Your task to perform on an android device: delete browsing data in the chrome app Image 0: 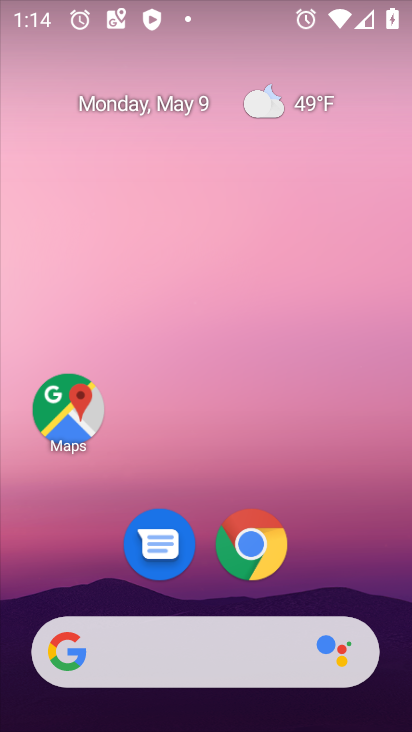
Step 0: click (251, 556)
Your task to perform on an android device: delete browsing data in the chrome app Image 1: 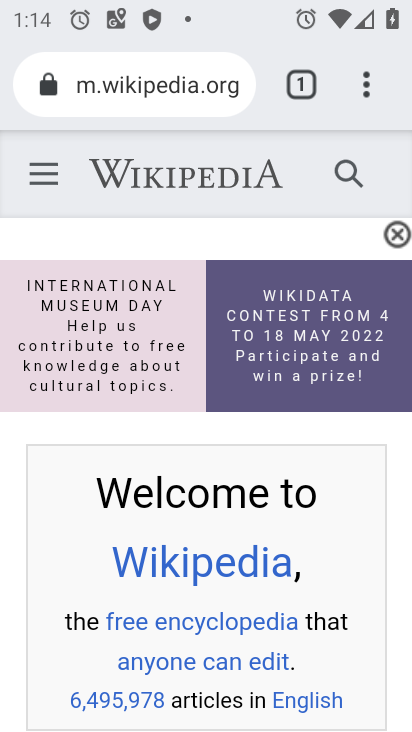
Step 1: click (354, 84)
Your task to perform on an android device: delete browsing data in the chrome app Image 2: 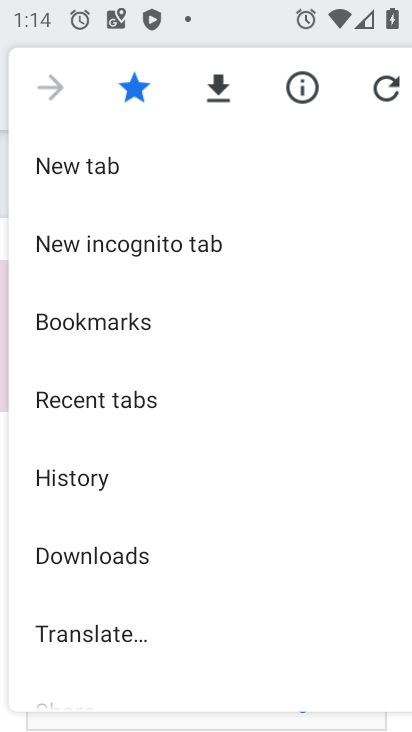
Step 2: click (125, 482)
Your task to perform on an android device: delete browsing data in the chrome app Image 3: 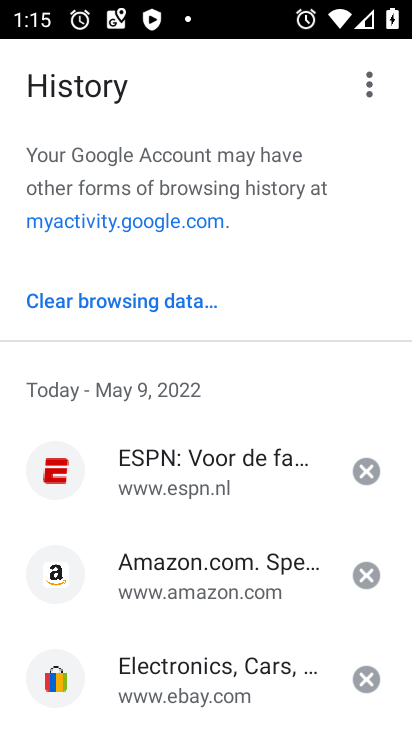
Step 3: click (163, 312)
Your task to perform on an android device: delete browsing data in the chrome app Image 4: 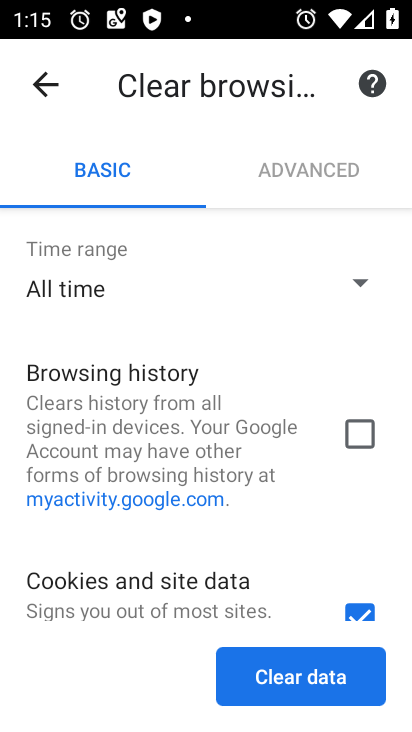
Step 4: click (280, 692)
Your task to perform on an android device: delete browsing data in the chrome app Image 5: 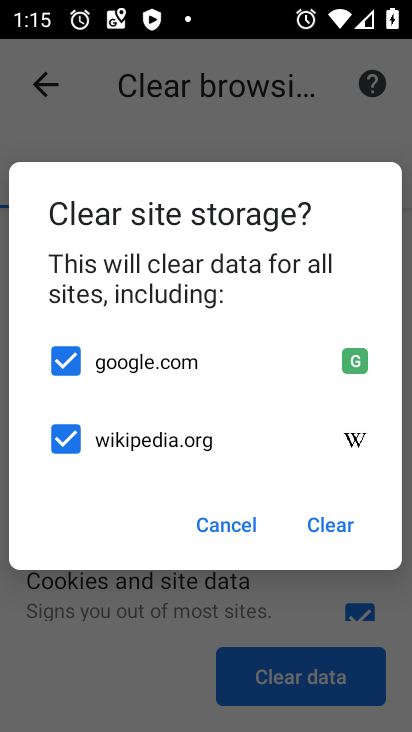
Step 5: click (235, 519)
Your task to perform on an android device: delete browsing data in the chrome app Image 6: 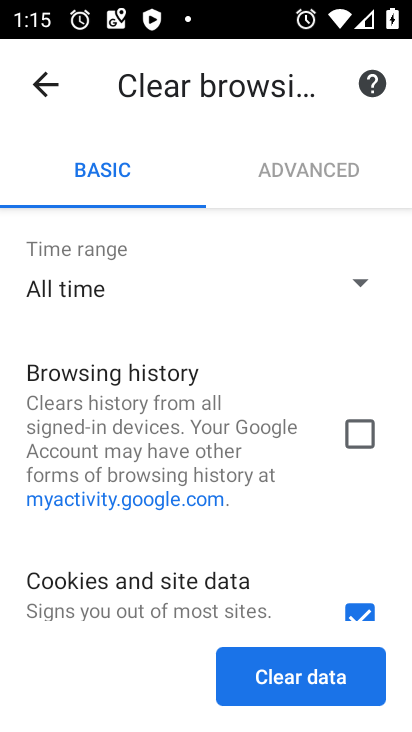
Step 6: click (358, 428)
Your task to perform on an android device: delete browsing data in the chrome app Image 7: 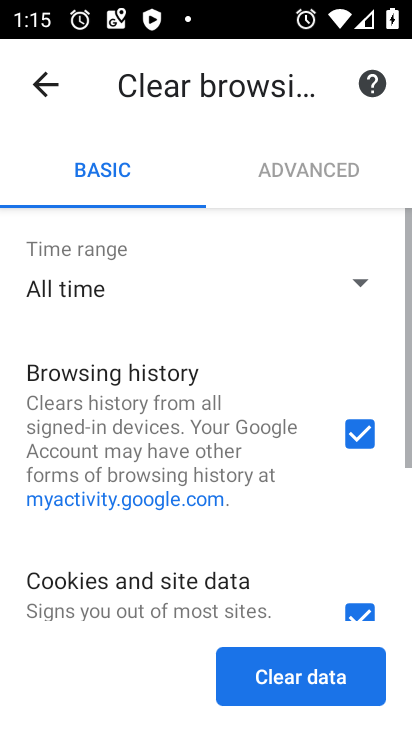
Step 7: click (301, 682)
Your task to perform on an android device: delete browsing data in the chrome app Image 8: 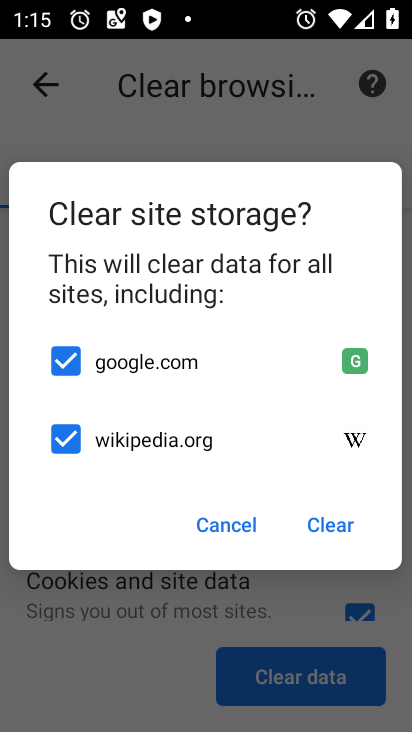
Step 8: click (328, 526)
Your task to perform on an android device: delete browsing data in the chrome app Image 9: 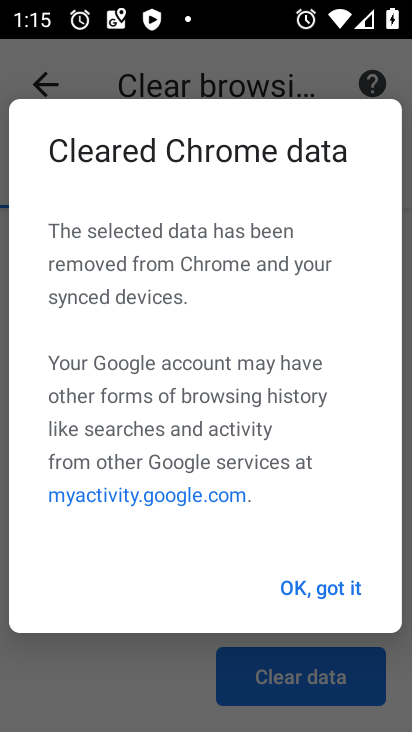
Step 9: click (309, 591)
Your task to perform on an android device: delete browsing data in the chrome app Image 10: 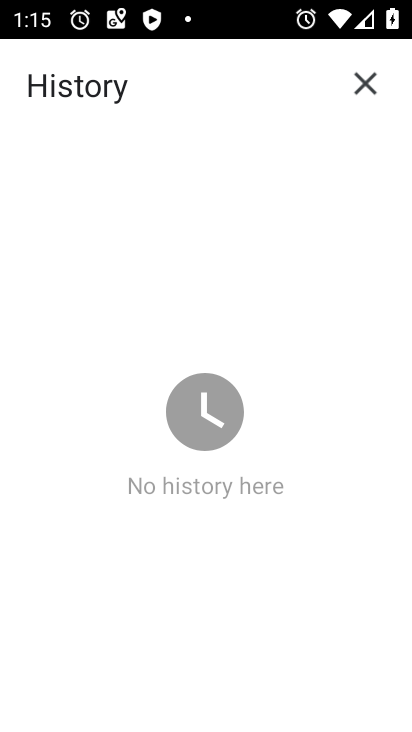
Step 10: task complete